Your task to perform on an android device: What's on my calendar today? Image 0: 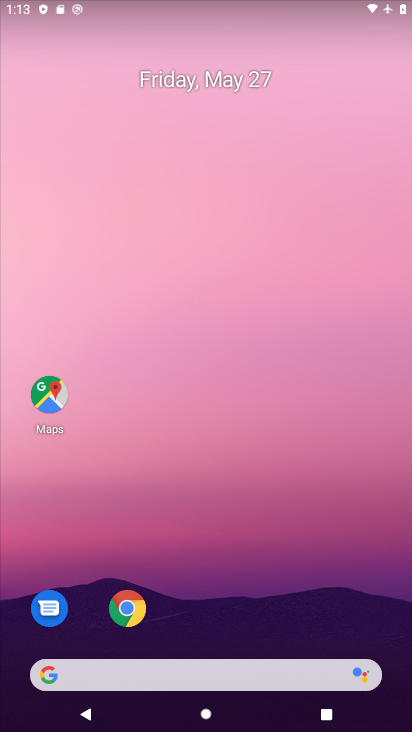
Step 0: press home button
Your task to perform on an android device: What's on my calendar today? Image 1: 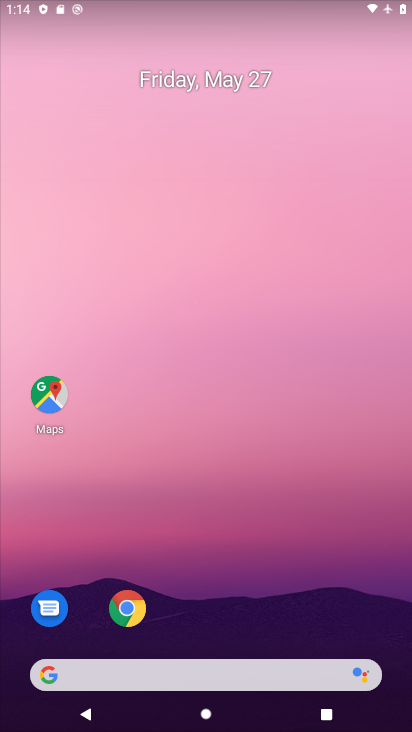
Step 1: drag from (175, 677) to (302, 229)
Your task to perform on an android device: What's on my calendar today? Image 2: 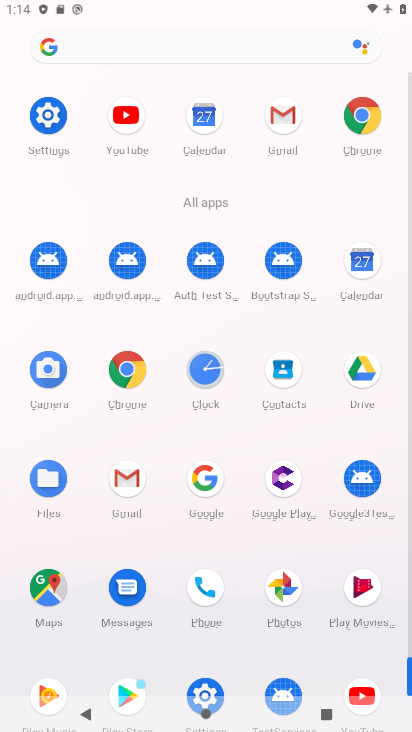
Step 2: click (359, 261)
Your task to perform on an android device: What's on my calendar today? Image 3: 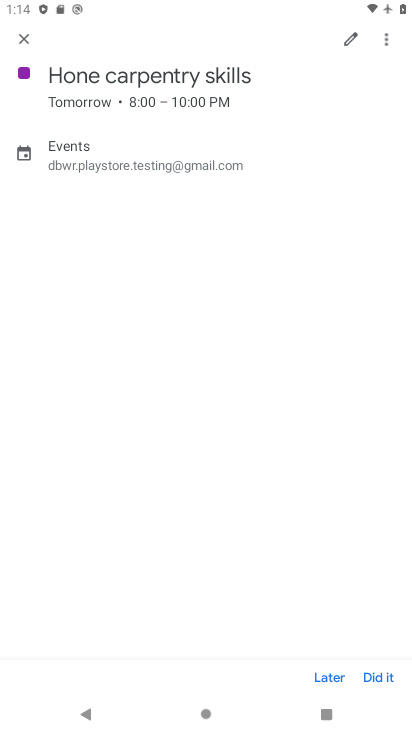
Step 3: click (27, 40)
Your task to perform on an android device: What's on my calendar today? Image 4: 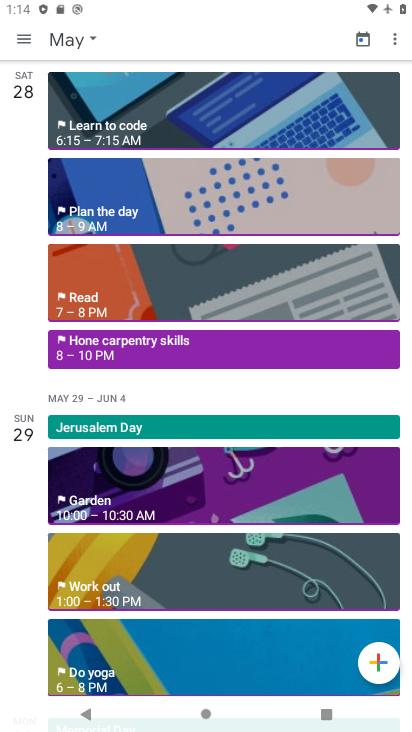
Step 4: click (72, 43)
Your task to perform on an android device: What's on my calendar today? Image 5: 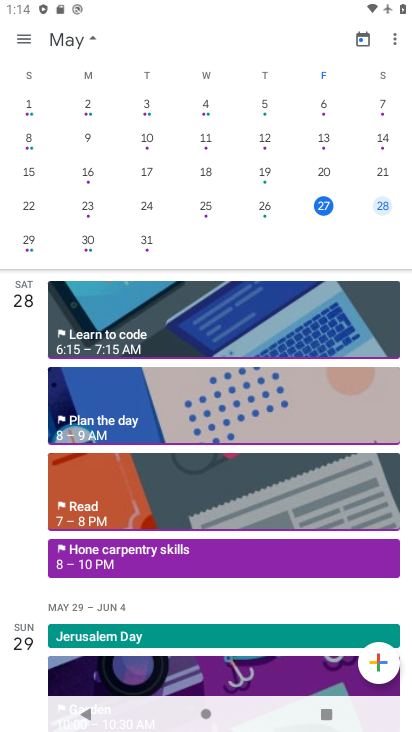
Step 5: click (327, 206)
Your task to perform on an android device: What's on my calendar today? Image 6: 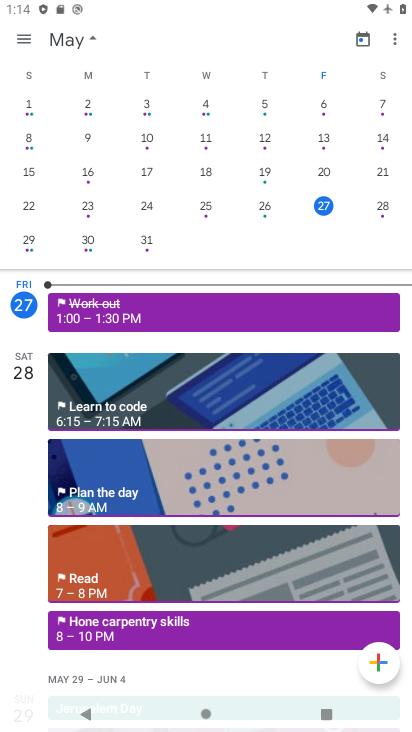
Step 6: click (28, 40)
Your task to perform on an android device: What's on my calendar today? Image 7: 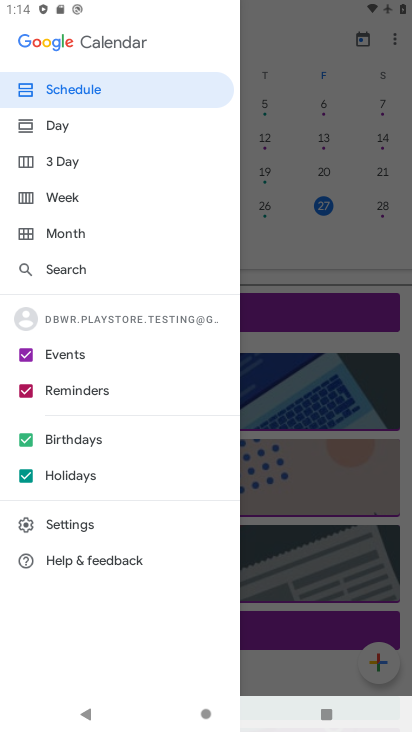
Step 7: click (106, 88)
Your task to perform on an android device: What's on my calendar today? Image 8: 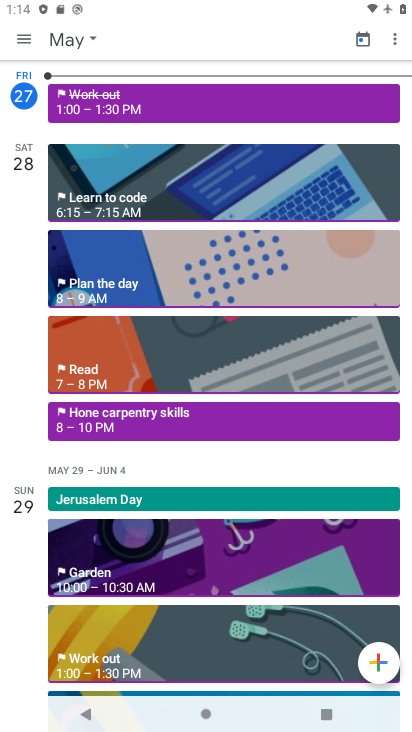
Step 8: click (123, 108)
Your task to perform on an android device: What's on my calendar today? Image 9: 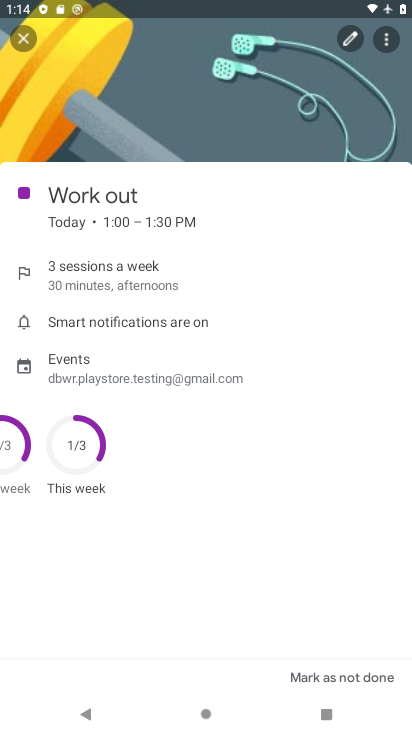
Step 9: task complete